Your task to perform on an android device: Play the last video I watched on Youtube Image 0: 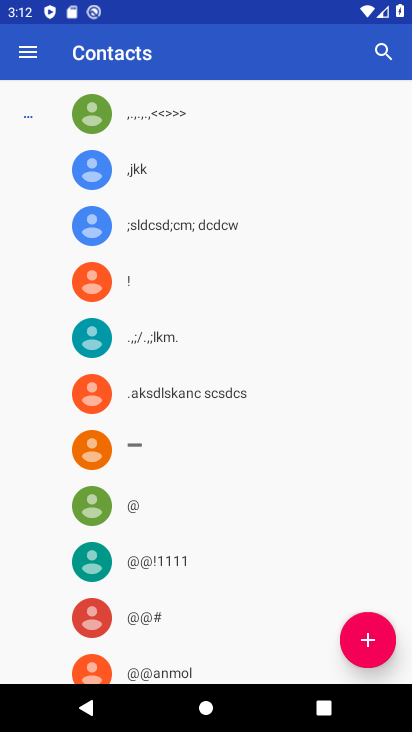
Step 0: press back button
Your task to perform on an android device: Play the last video I watched on Youtube Image 1: 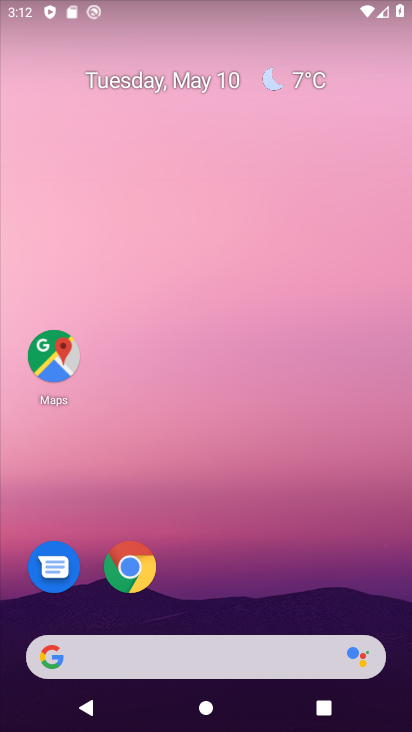
Step 1: drag from (287, 561) to (246, 14)
Your task to perform on an android device: Play the last video I watched on Youtube Image 2: 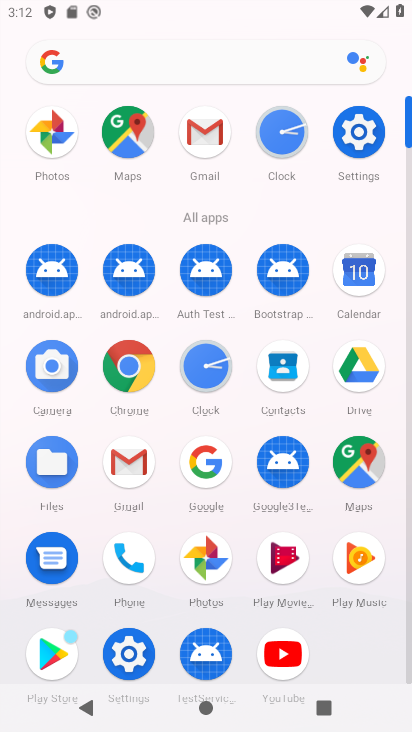
Step 2: click (284, 651)
Your task to perform on an android device: Play the last video I watched on Youtube Image 3: 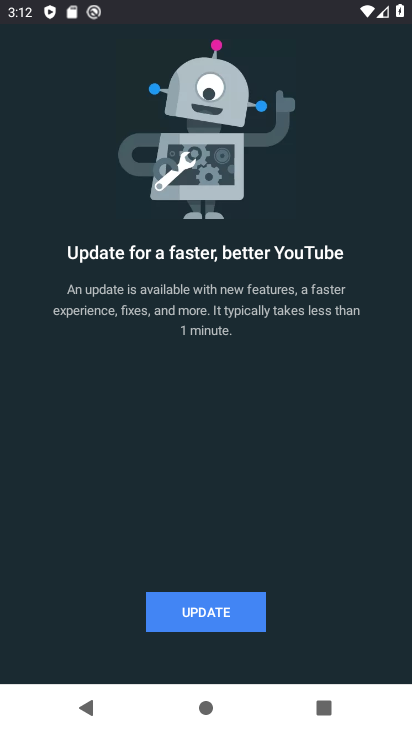
Step 3: click (212, 617)
Your task to perform on an android device: Play the last video I watched on Youtube Image 4: 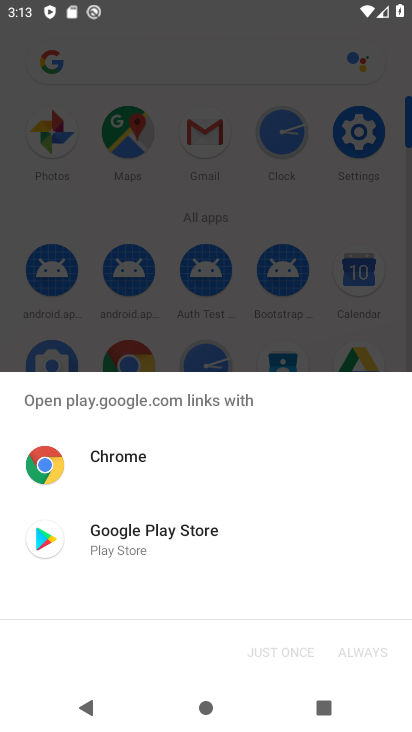
Step 4: click (104, 531)
Your task to perform on an android device: Play the last video I watched on Youtube Image 5: 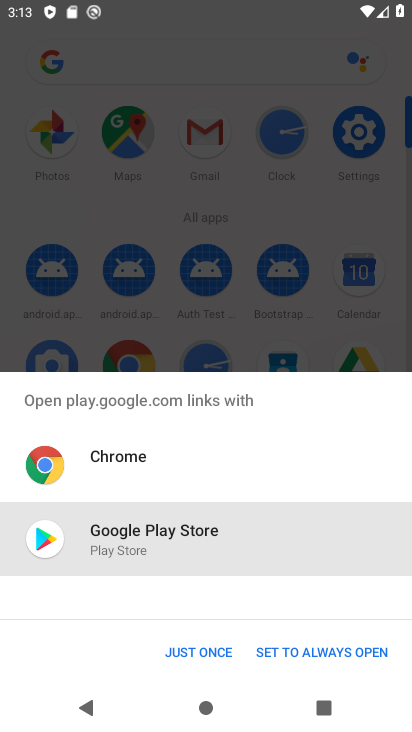
Step 5: click (224, 650)
Your task to perform on an android device: Play the last video I watched on Youtube Image 6: 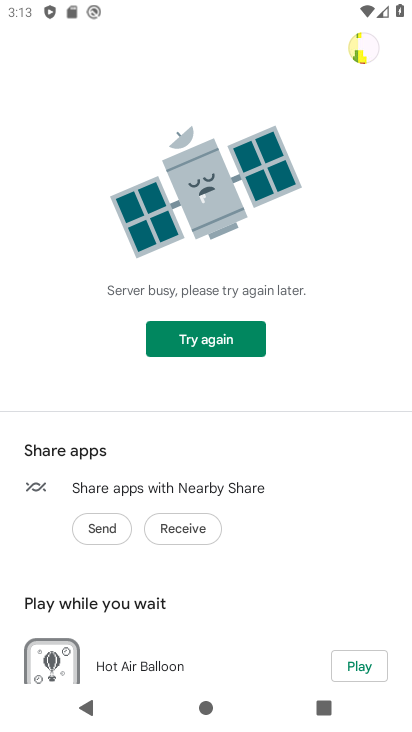
Step 6: click (202, 351)
Your task to perform on an android device: Play the last video I watched on Youtube Image 7: 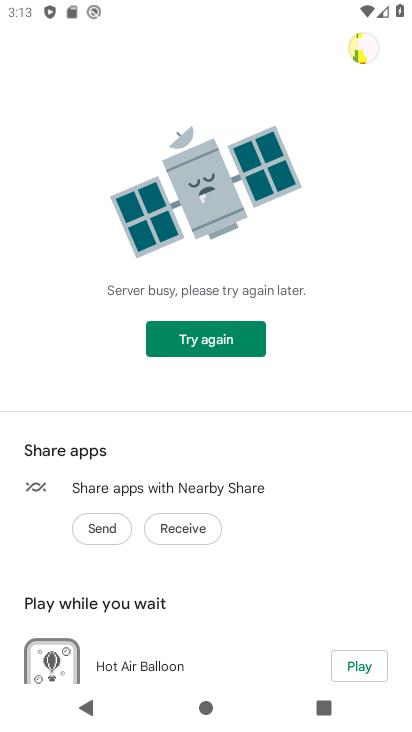
Step 7: task complete